Your task to perform on an android device: uninstall "Viber Messenger" Image 0: 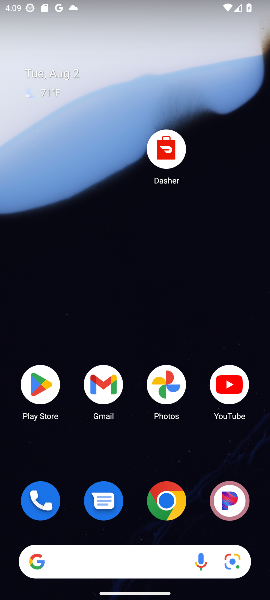
Step 0: click (43, 391)
Your task to perform on an android device: uninstall "Viber Messenger" Image 1: 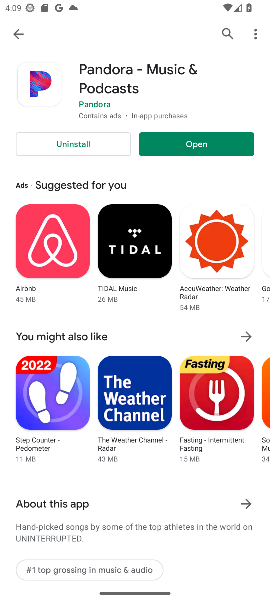
Step 1: click (224, 28)
Your task to perform on an android device: uninstall "Viber Messenger" Image 2: 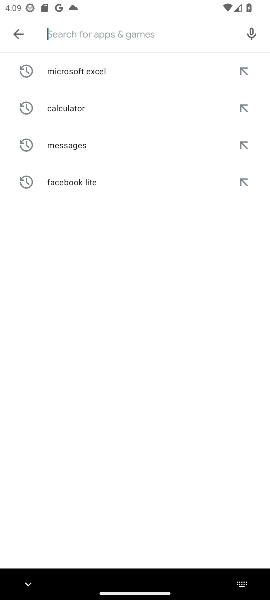
Step 2: type "Viber Messenger"
Your task to perform on an android device: uninstall "Viber Messenger" Image 3: 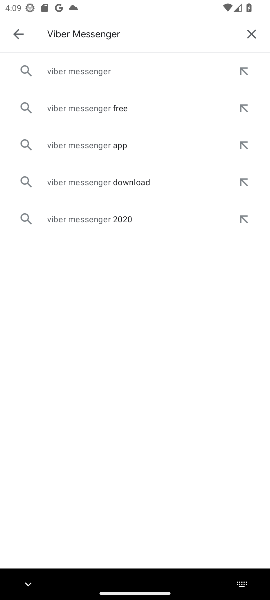
Step 3: click (77, 79)
Your task to perform on an android device: uninstall "Viber Messenger" Image 4: 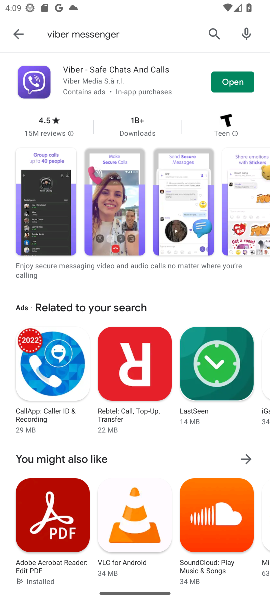
Step 4: click (54, 81)
Your task to perform on an android device: uninstall "Viber Messenger" Image 5: 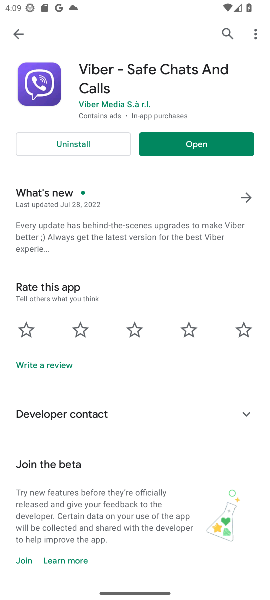
Step 5: click (67, 148)
Your task to perform on an android device: uninstall "Viber Messenger" Image 6: 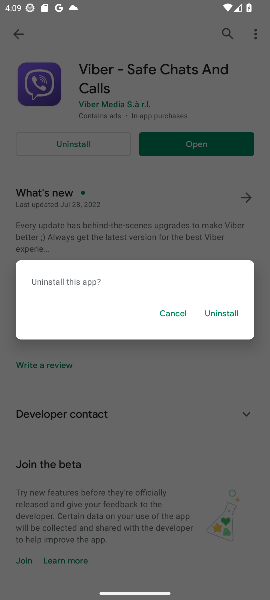
Step 6: click (227, 317)
Your task to perform on an android device: uninstall "Viber Messenger" Image 7: 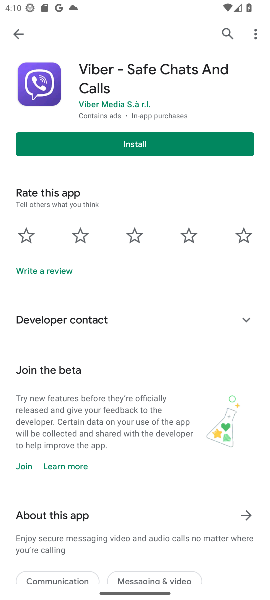
Step 7: task complete